Your task to perform on an android device: Open Yahoo.com Image 0: 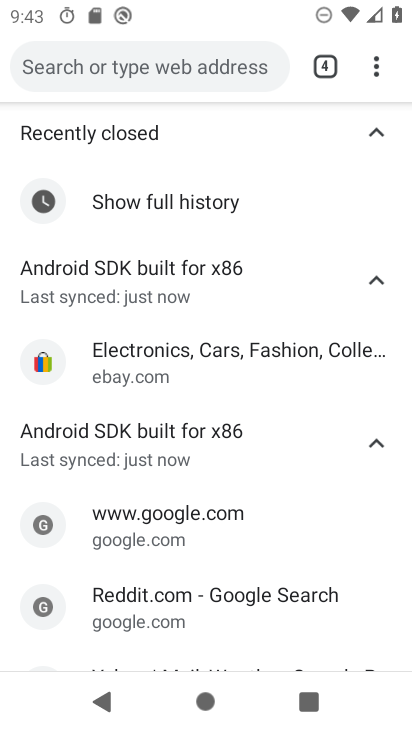
Step 0: press home button
Your task to perform on an android device: Open Yahoo.com Image 1: 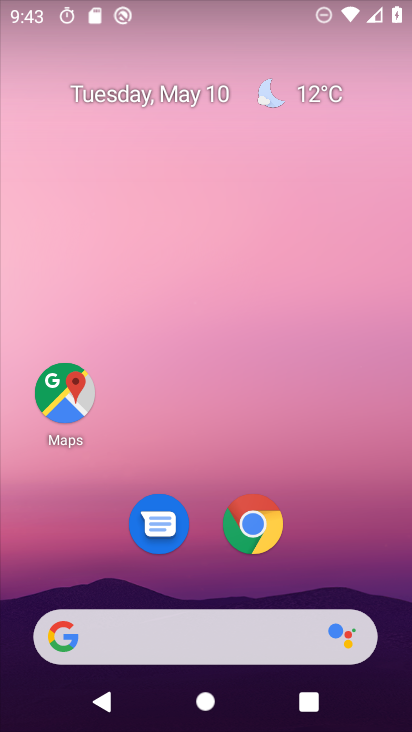
Step 1: click (185, 635)
Your task to perform on an android device: Open Yahoo.com Image 2: 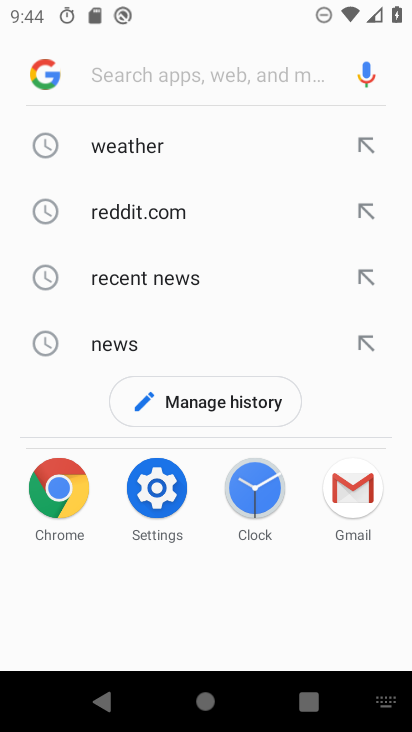
Step 2: type "yahoo.com"
Your task to perform on an android device: Open Yahoo.com Image 3: 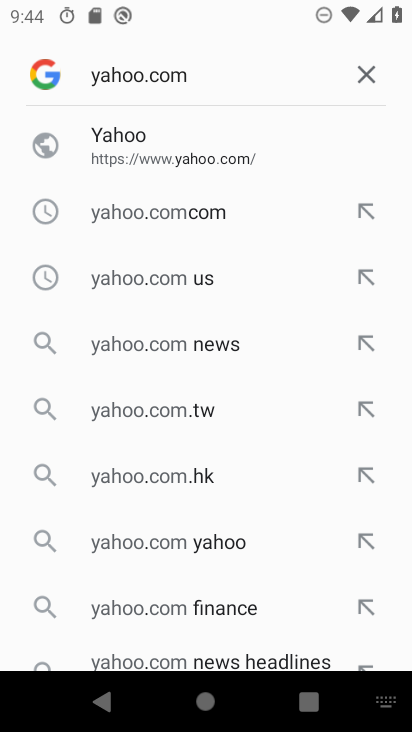
Step 3: click (131, 149)
Your task to perform on an android device: Open Yahoo.com Image 4: 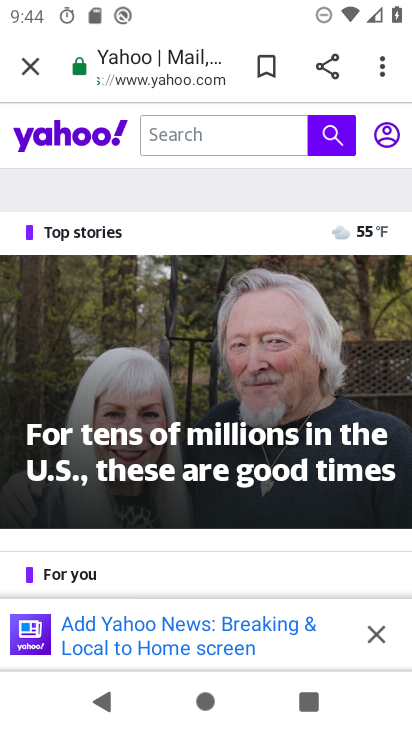
Step 4: task complete